Your task to perform on an android device: manage bookmarks in the chrome app Image 0: 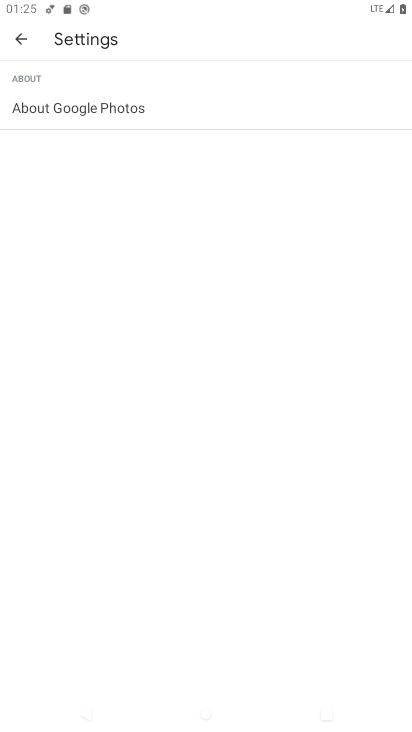
Step 0: press home button
Your task to perform on an android device: manage bookmarks in the chrome app Image 1: 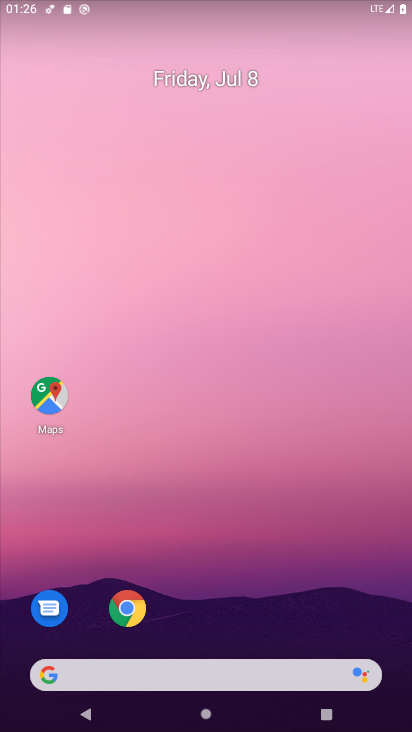
Step 1: click (123, 610)
Your task to perform on an android device: manage bookmarks in the chrome app Image 2: 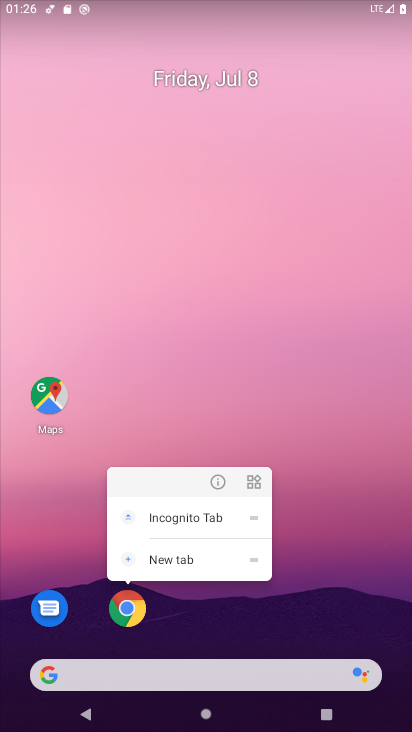
Step 2: click (123, 610)
Your task to perform on an android device: manage bookmarks in the chrome app Image 3: 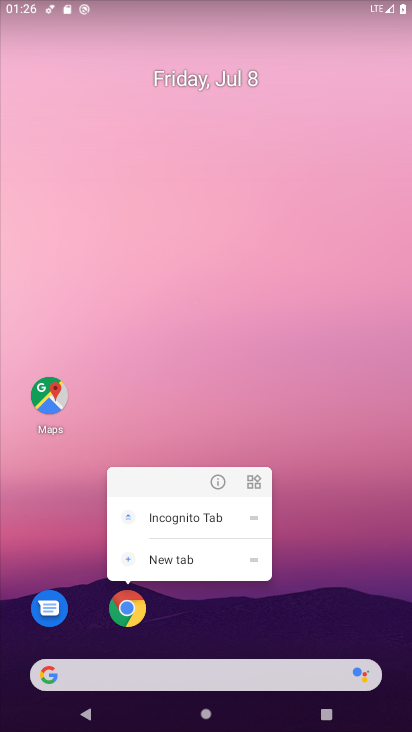
Step 3: click (118, 608)
Your task to perform on an android device: manage bookmarks in the chrome app Image 4: 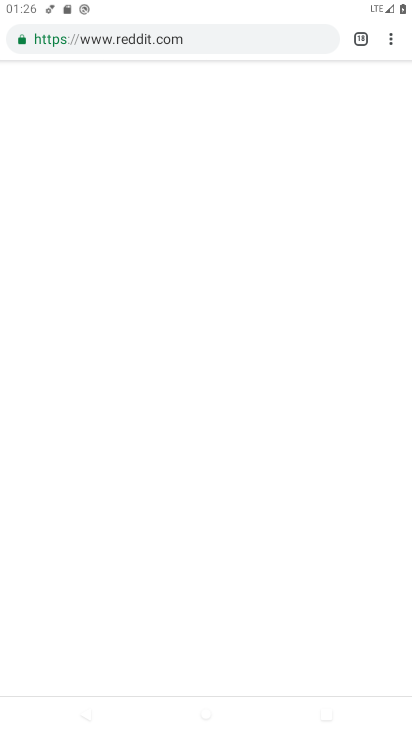
Step 4: click (381, 39)
Your task to perform on an android device: manage bookmarks in the chrome app Image 5: 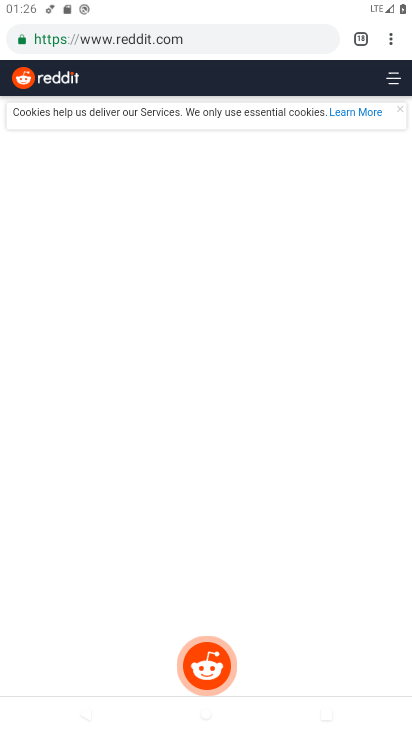
Step 5: click (390, 33)
Your task to perform on an android device: manage bookmarks in the chrome app Image 6: 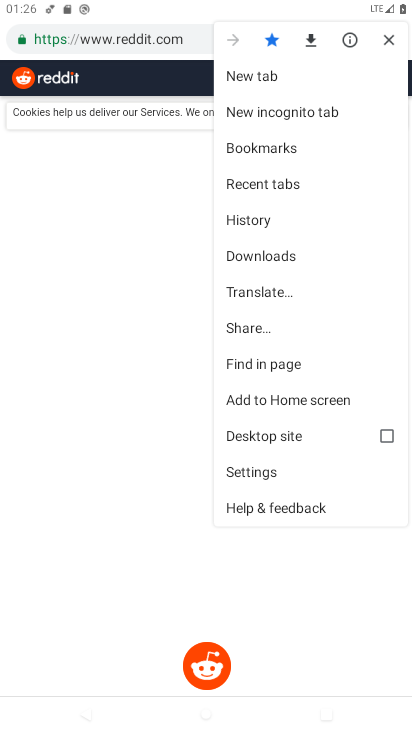
Step 6: click (268, 155)
Your task to perform on an android device: manage bookmarks in the chrome app Image 7: 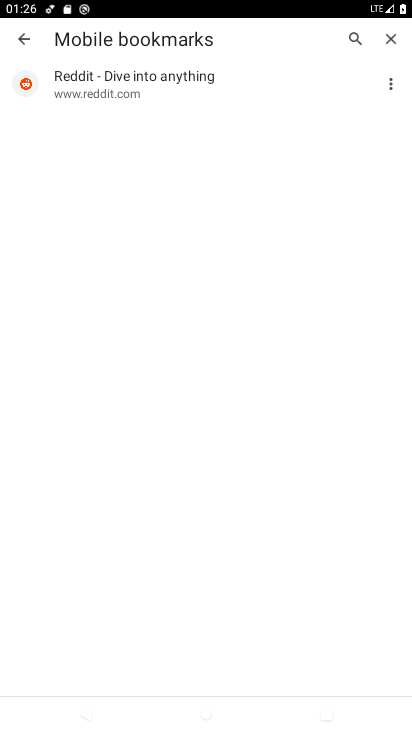
Step 7: click (164, 68)
Your task to perform on an android device: manage bookmarks in the chrome app Image 8: 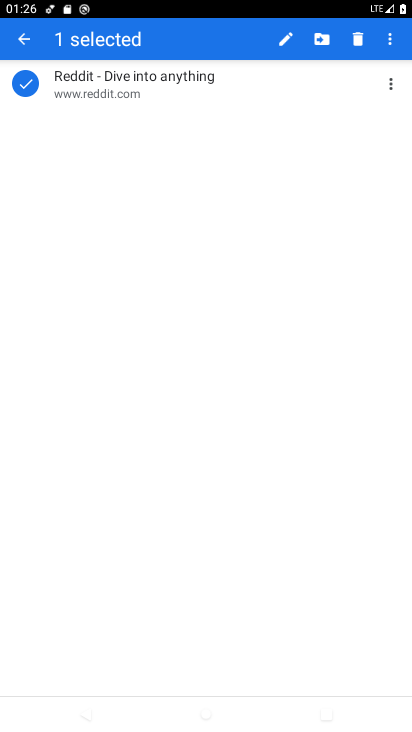
Step 8: click (322, 39)
Your task to perform on an android device: manage bookmarks in the chrome app Image 9: 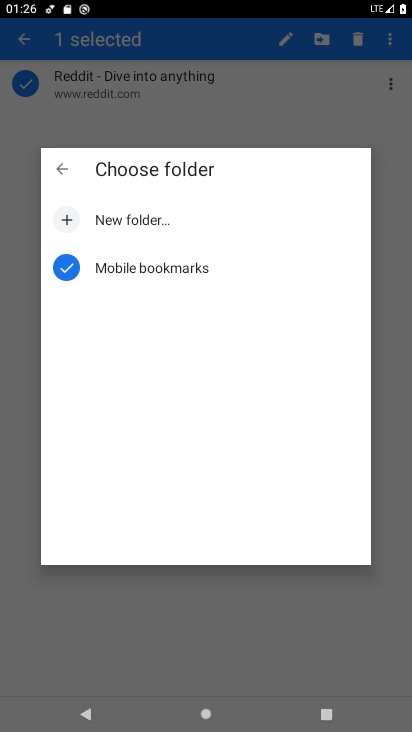
Step 9: click (125, 223)
Your task to perform on an android device: manage bookmarks in the chrome app Image 10: 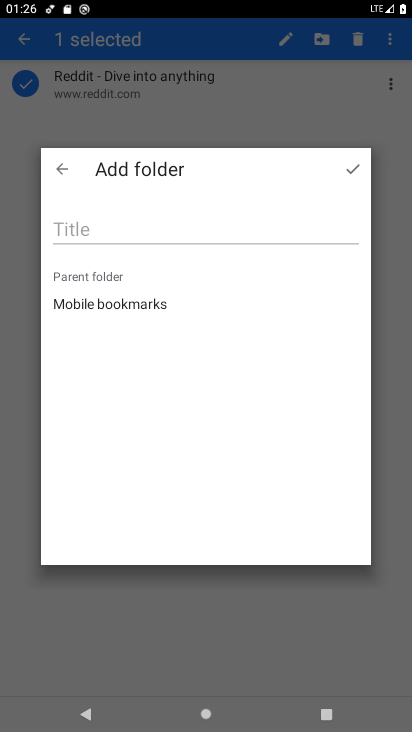
Step 10: click (135, 221)
Your task to perform on an android device: manage bookmarks in the chrome app Image 11: 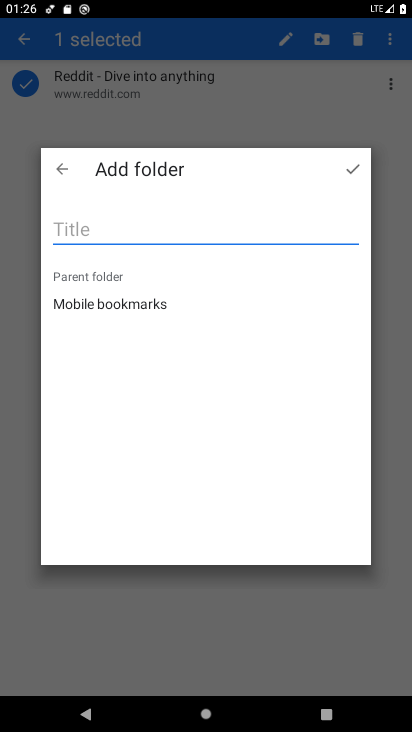
Step 11: type "pankaj "
Your task to perform on an android device: manage bookmarks in the chrome app Image 12: 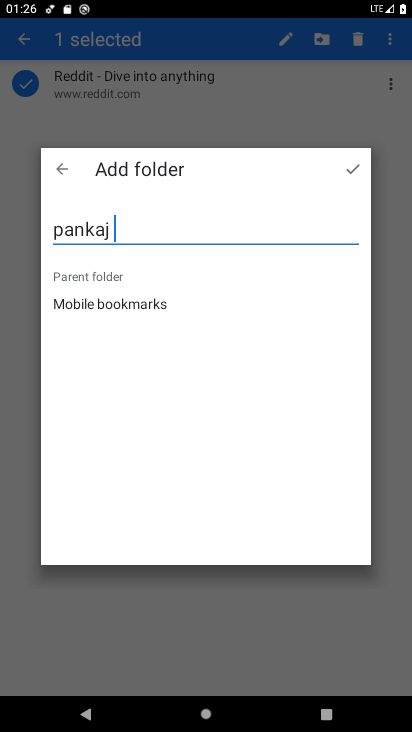
Step 12: click (361, 161)
Your task to perform on an android device: manage bookmarks in the chrome app Image 13: 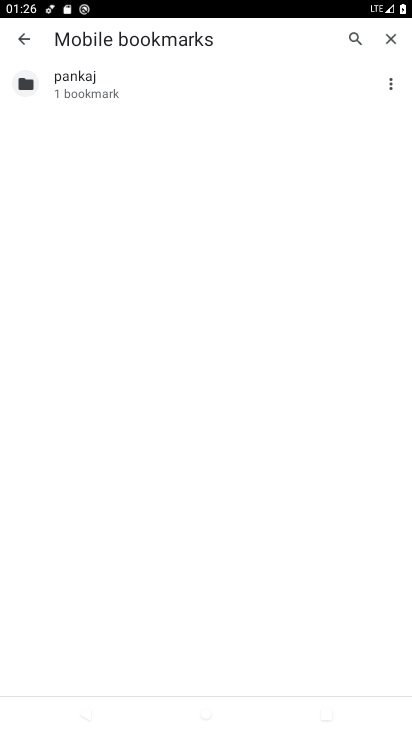
Step 13: task complete